Your task to perform on an android device: Search for the most popular books on Goodreads Image 0: 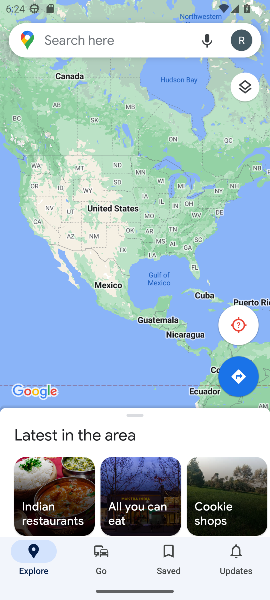
Step 0: press home button
Your task to perform on an android device: Search for the most popular books on Goodreads Image 1: 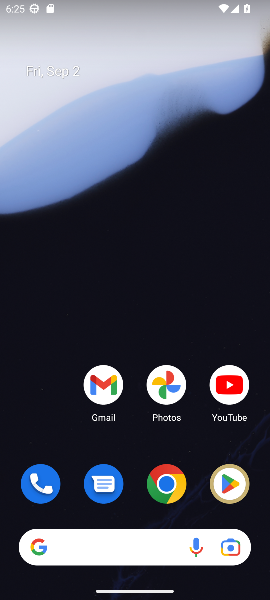
Step 1: click (164, 482)
Your task to perform on an android device: Search for the most popular books on Goodreads Image 2: 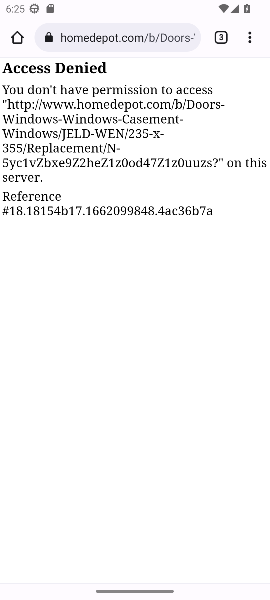
Step 2: click (137, 35)
Your task to perform on an android device: Search for the most popular books on Goodreads Image 3: 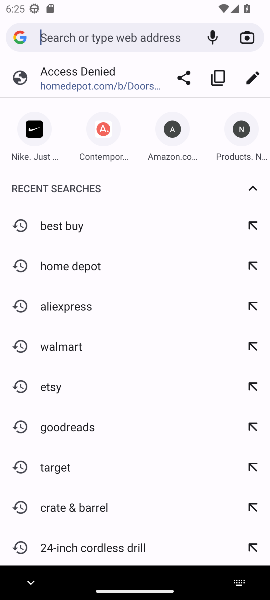
Step 3: type " Goodreads"
Your task to perform on an android device: Search for the most popular books on Goodreads Image 4: 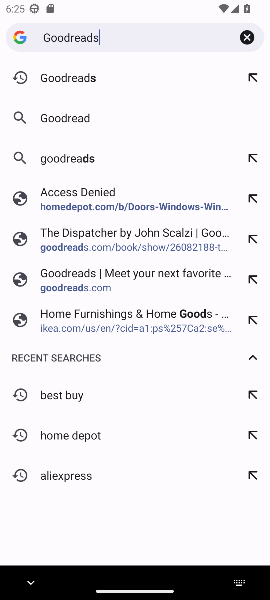
Step 4: press enter
Your task to perform on an android device: Search for the most popular books on Goodreads Image 5: 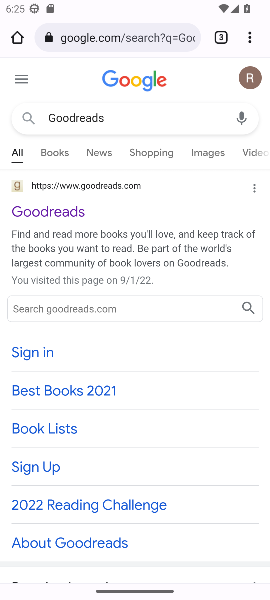
Step 5: click (69, 214)
Your task to perform on an android device: Search for the most popular books on Goodreads Image 6: 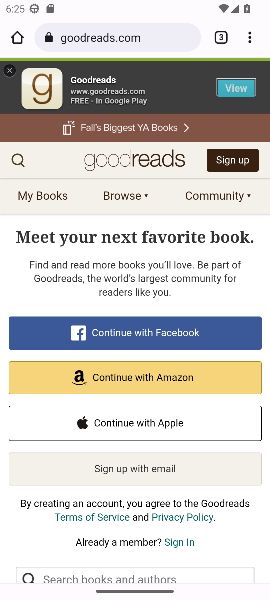
Step 6: click (17, 157)
Your task to perform on an android device: Search for the most popular books on Goodreads Image 7: 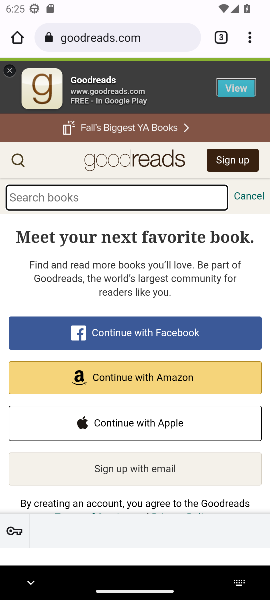
Step 7: type " most popular books"
Your task to perform on an android device: Search for the most popular books on Goodreads Image 8: 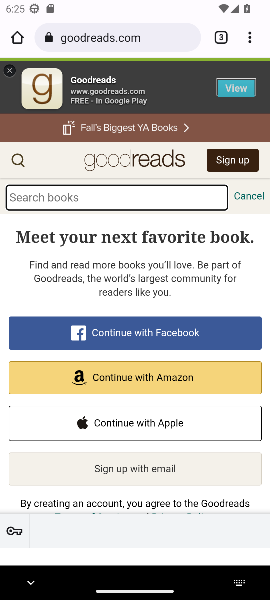
Step 8: press enter
Your task to perform on an android device: Search for the most popular books on Goodreads Image 9: 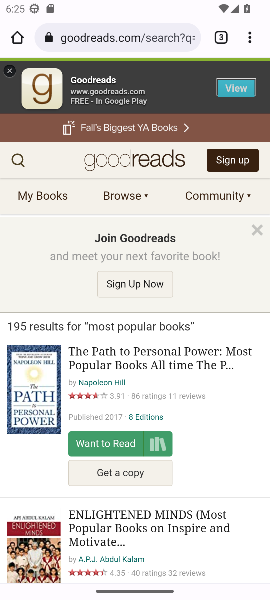
Step 9: task complete